Your task to perform on an android device: uninstall "Grab" Image 0: 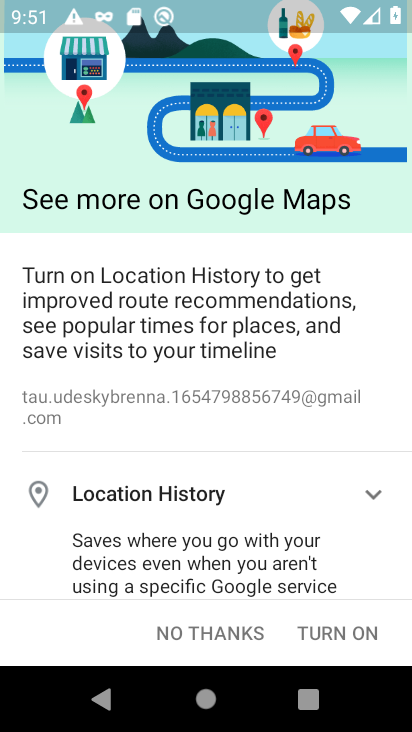
Step 0: press home button
Your task to perform on an android device: uninstall "Grab" Image 1: 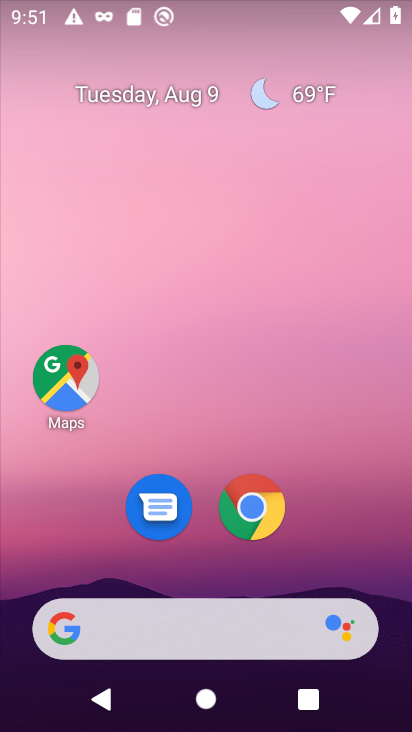
Step 1: drag from (202, 632) to (238, 163)
Your task to perform on an android device: uninstall "Grab" Image 2: 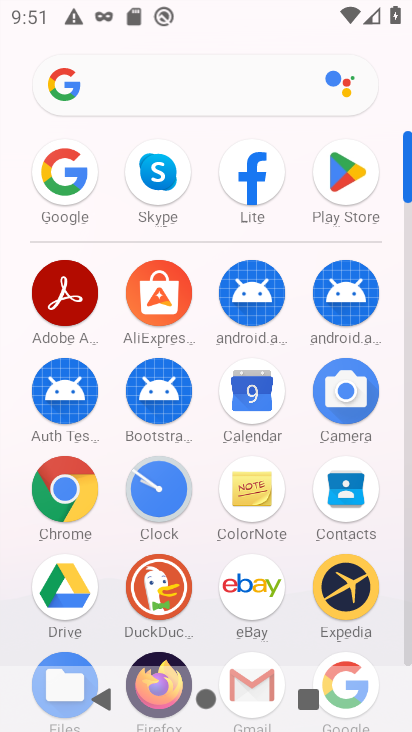
Step 2: click (355, 171)
Your task to perform on an android device: uninstall "Grab" Image 3: 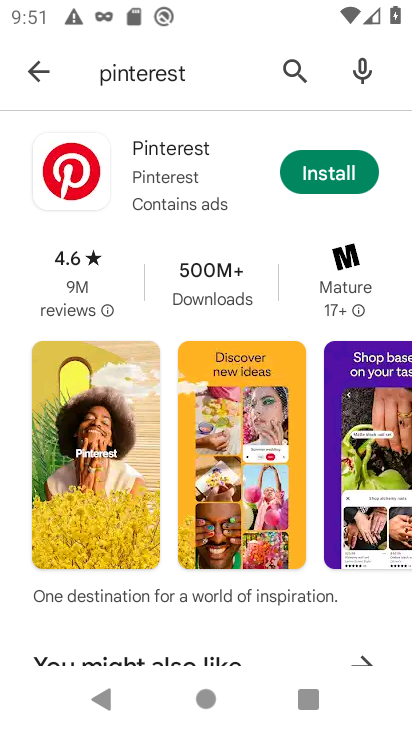
Step 3: click (287, 65)
Your task to perform on an android device: uninstall "Grab" Image 4: 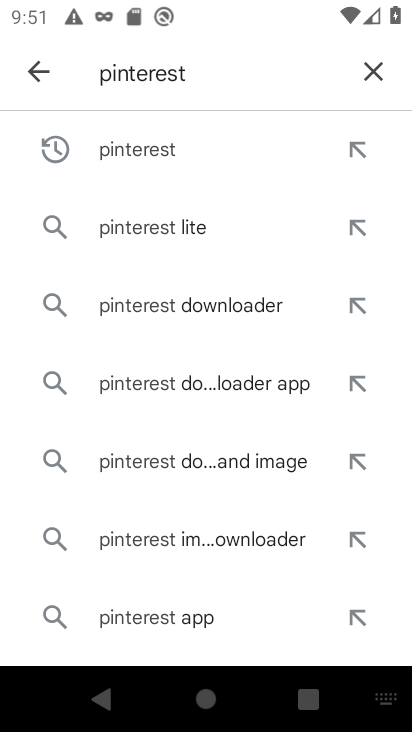
Step 4: click (380, 76)
Your task to perform on an android device: uninstall "Grab" Image 5: 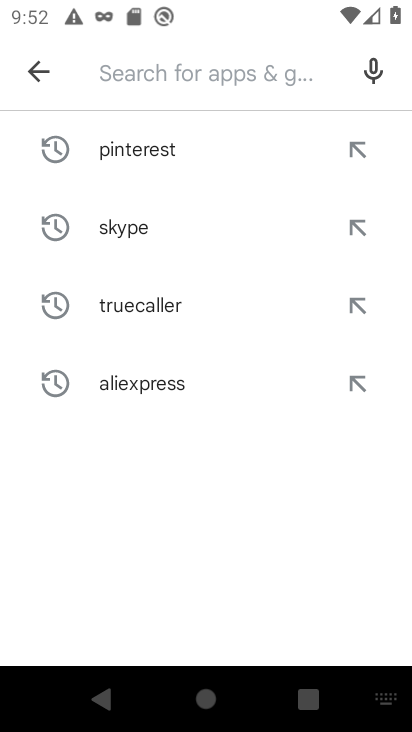
Step 5: type "Grab"
Your task to perform on an android device: uninstall "Grab" Image 6: 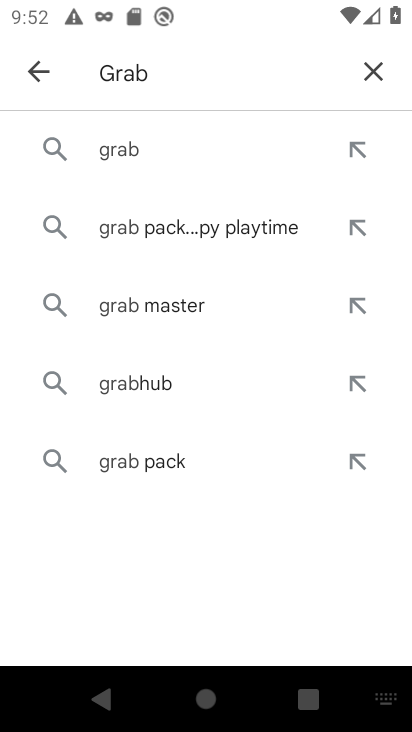
Step 6: click (133, 143)
Your task to perform on an android device: uninstall "Grab" Image 7: 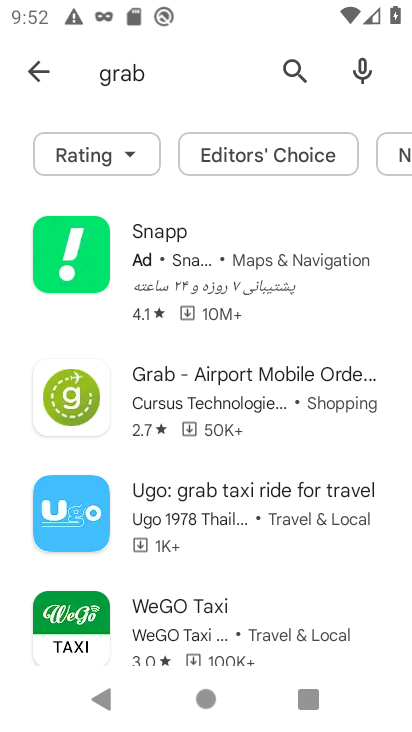
Step 7: task complete